Your task to perform on an android device: Go to accessibility settings Image 0: 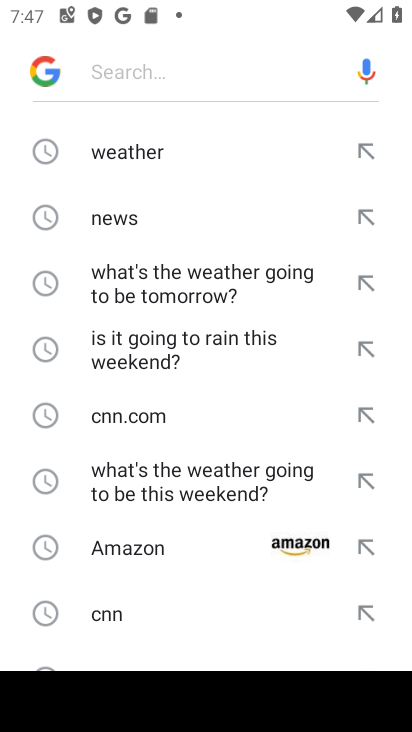
Step 0: press home button
Your task to perform on an android device: Go to accessibility settings Image 1: 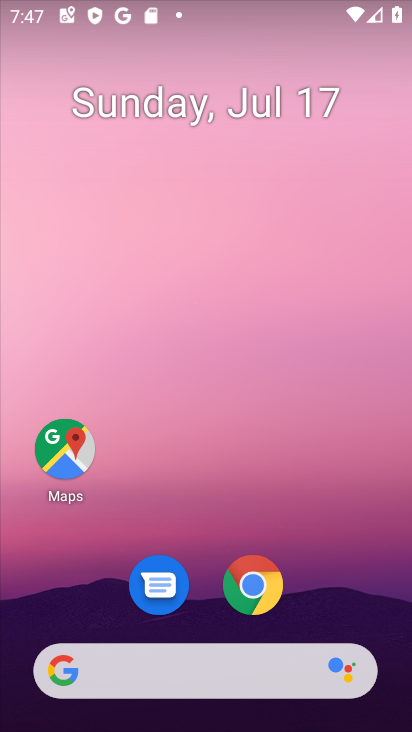
Step 1: drag from (341, 595) to (285, 194)
Your task to perform on an android device: Go to accessibility settings Image 2: 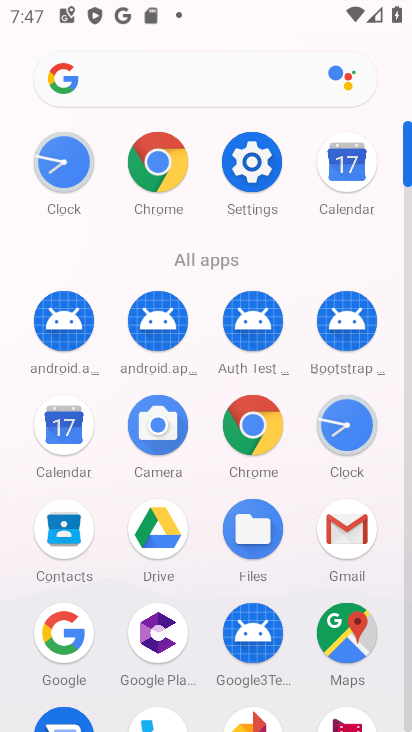
Step 2: click (260, 159)
Your task to perform on an android device: Go to accessibility settings Image 3: 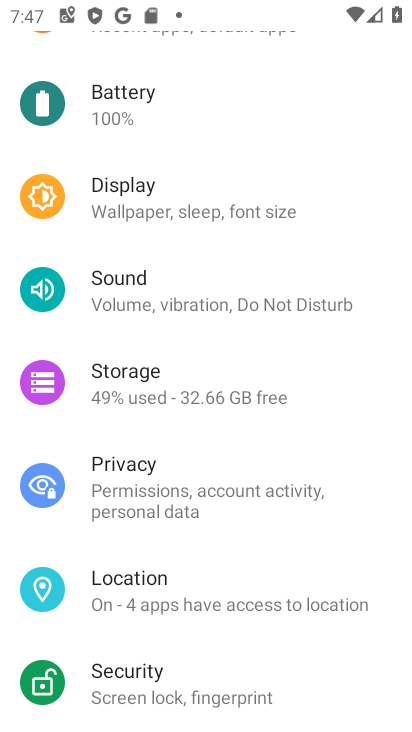
Step 3: drag from (217, 522) to (185, 68)
Your task to perform on an android device: Go to accessibility settings Image 4: 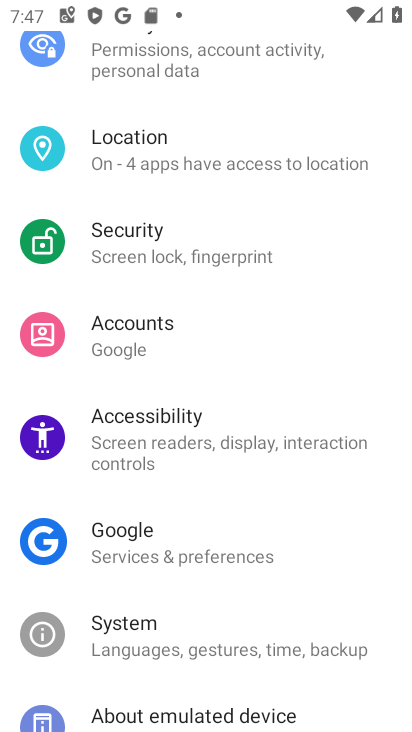
Step 4: click (161, 430)
Your task to perform on an android device: Go to accessibility settings Image 5: 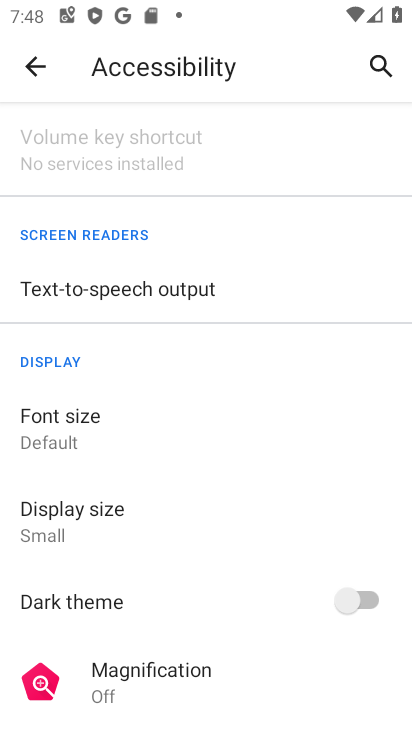
Step 5: task complete